Your task to perform on an android device: empty trash in the gmail app Image 0: 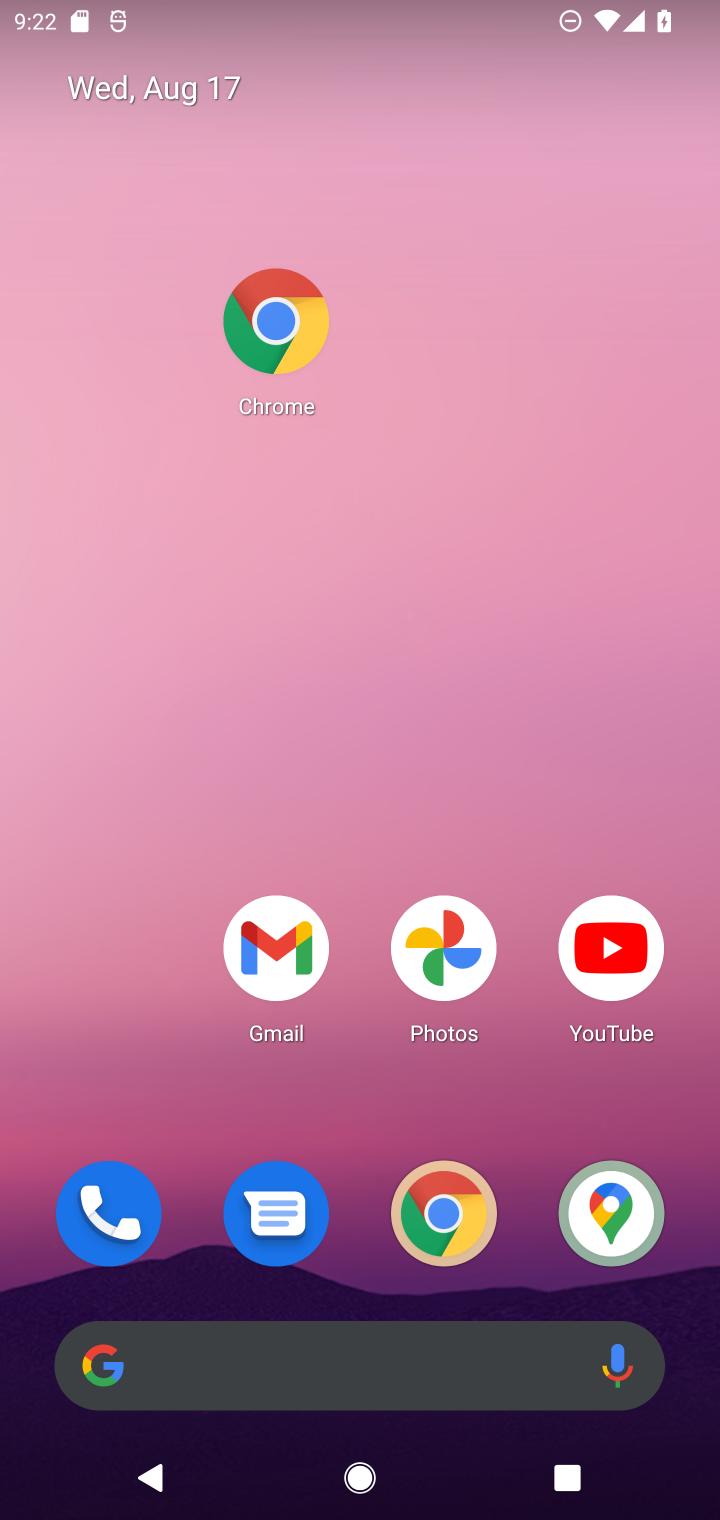
Step 0: click (259, 973)
Your task to perform on an android device: empty trash in the gmail app Image 1: 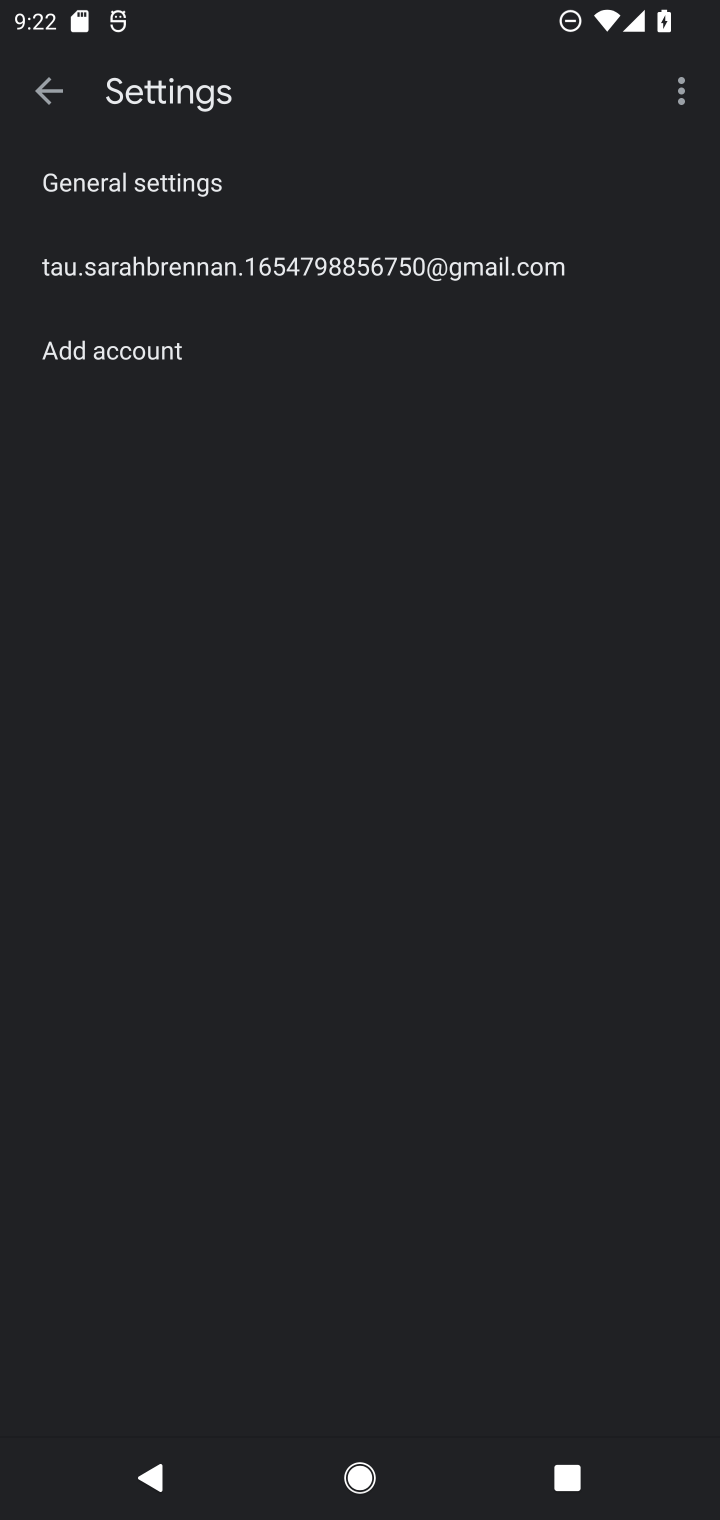
Step 1: click (42, 103)
Your task to perform on an android device: empty trash in the gmail app Image 2: 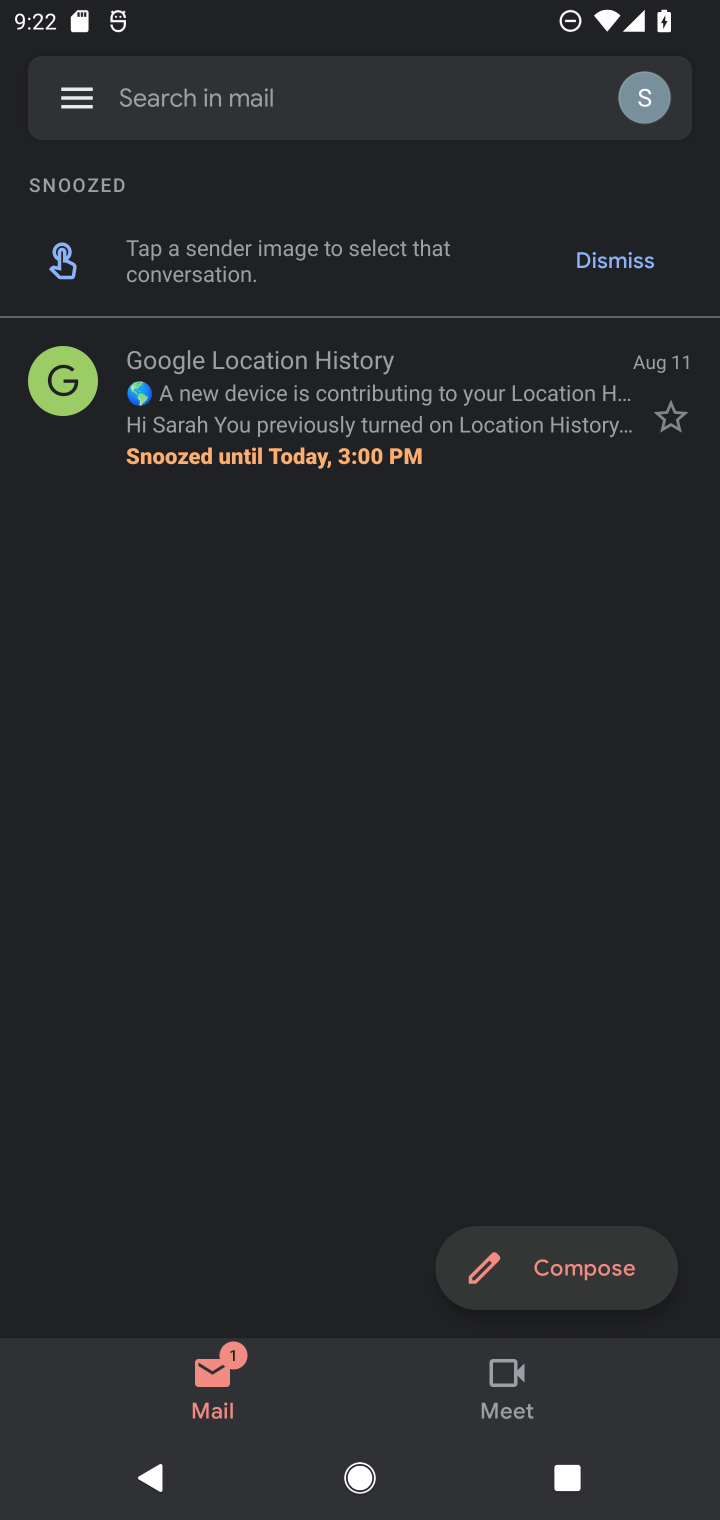
Step 2: click (74, 111)
Your task to perform on an android device: empty trash in the gmail app Image 3: 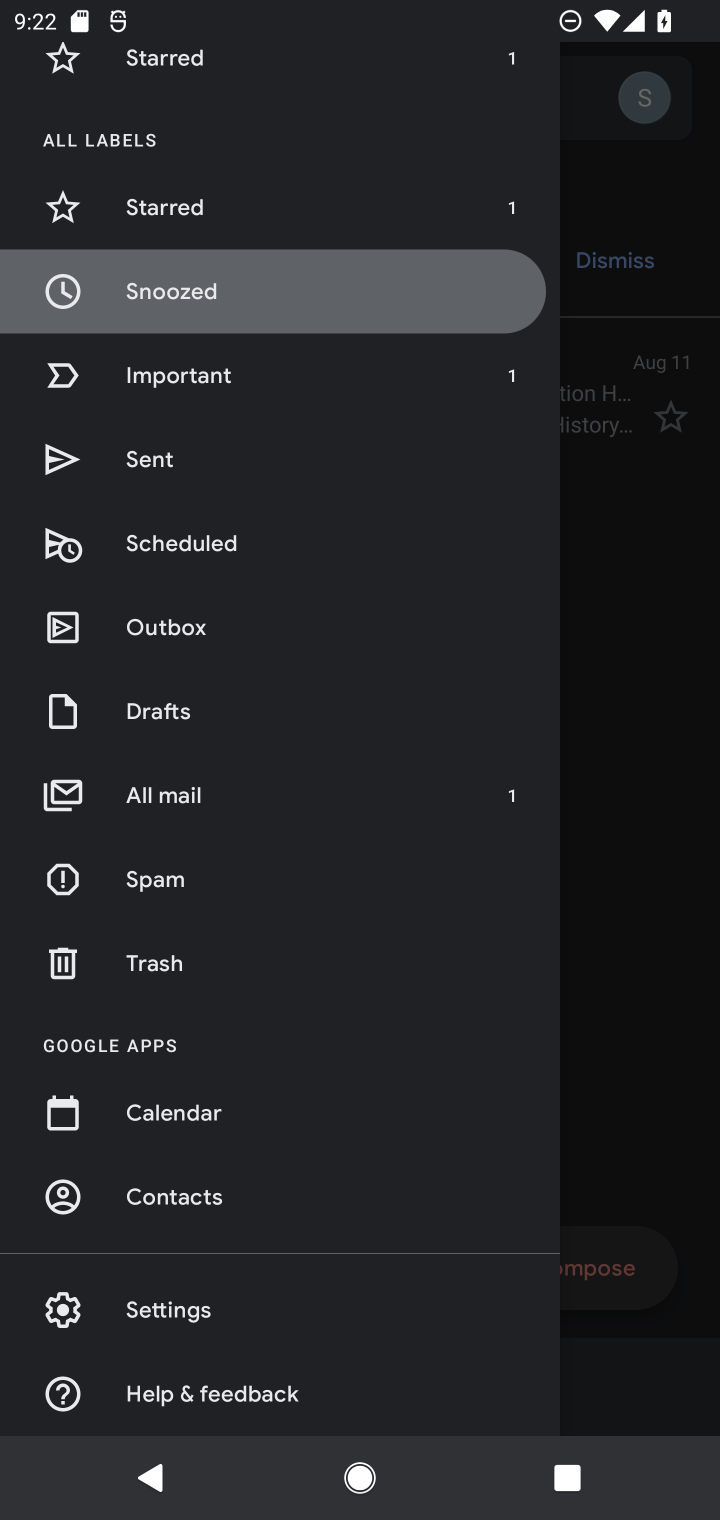
Step 3: click (186, 947)
Your task to perform on an android device: empty trash in the gmail app Image 4: 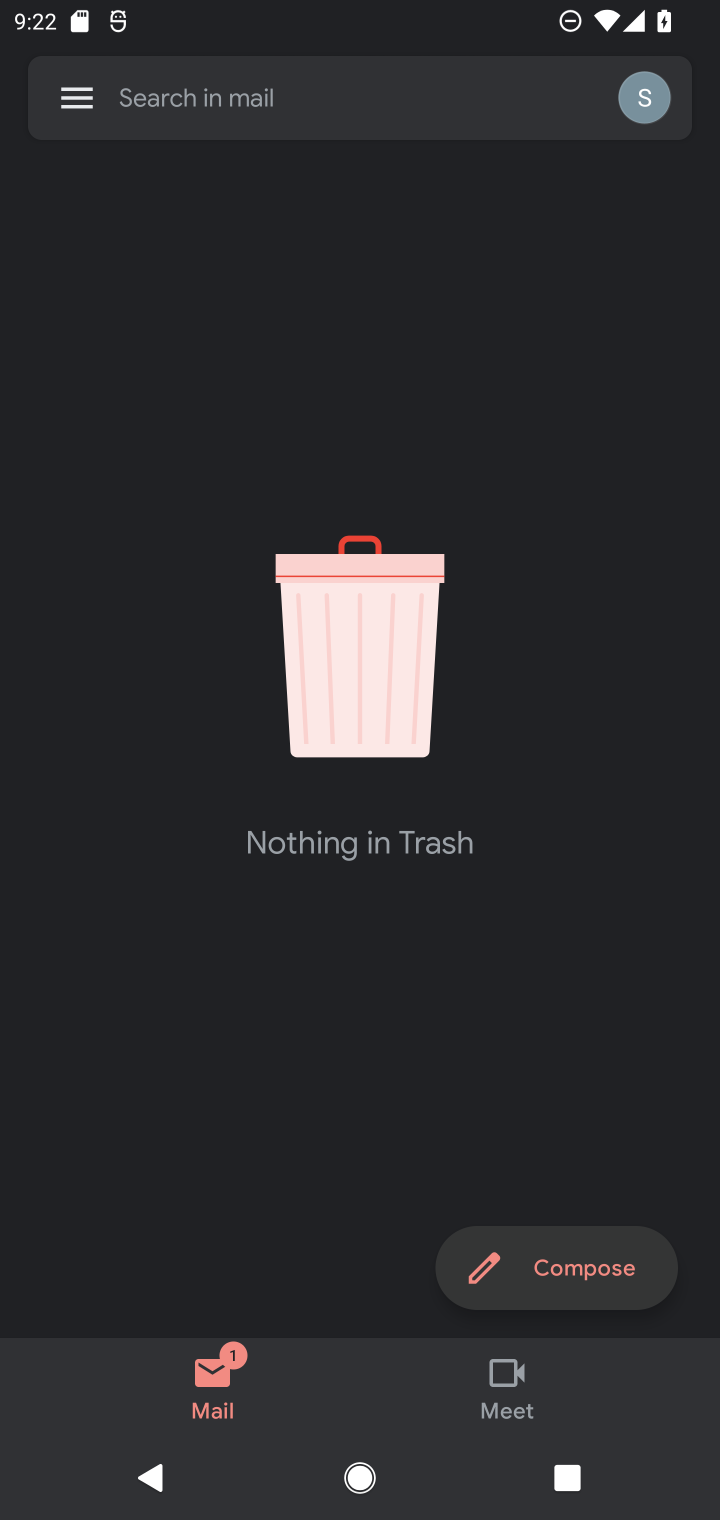
Step 4: task complete